Your task to perform on an android device: find which apps use the phone's location Image 0: 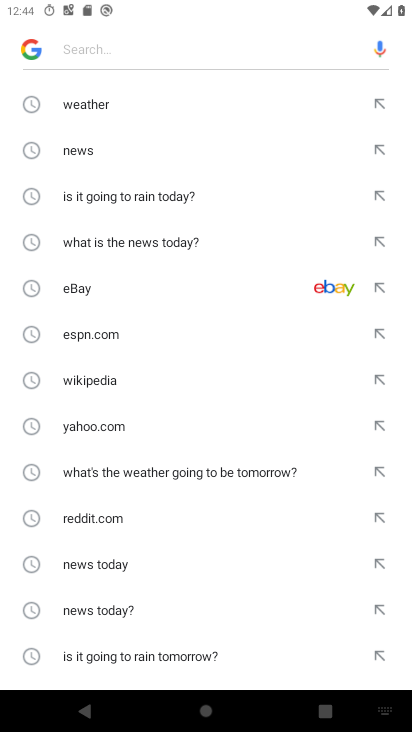
Step 0: press home button
Your task to perform on an android device: find which apps use the phone's location Image 1: 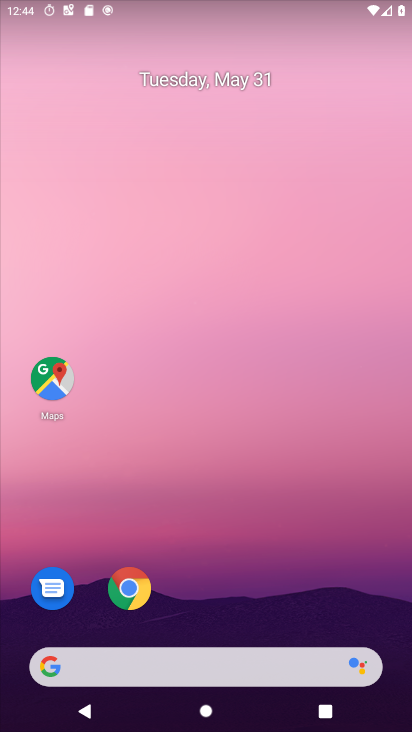
Step 1: drag from (192, 639) to (307, 0)
Your task to perform on an android device: find which apps use the phone's location Image 2: 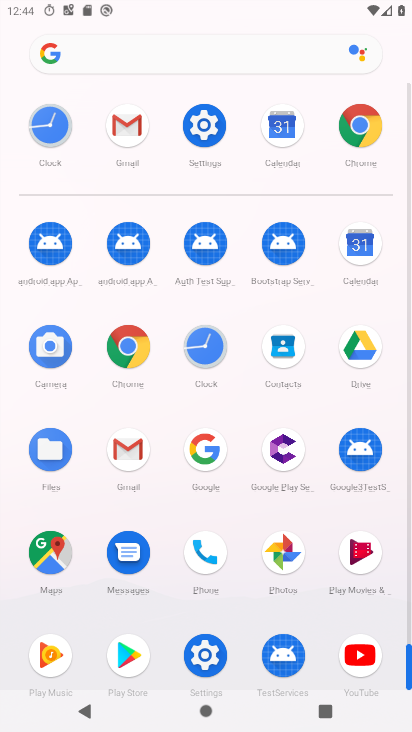
Step 2: click (193, 130)
Your task to perform on an android device: find which apps use the phone's location Image 3: 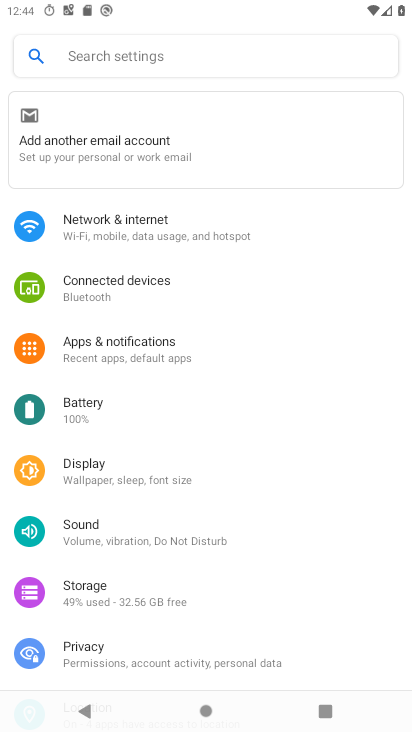
Step 3: drag from (174, 637) to (178, 378)
Your task to perform on an android device: find which apps use the phone's location Image 4: 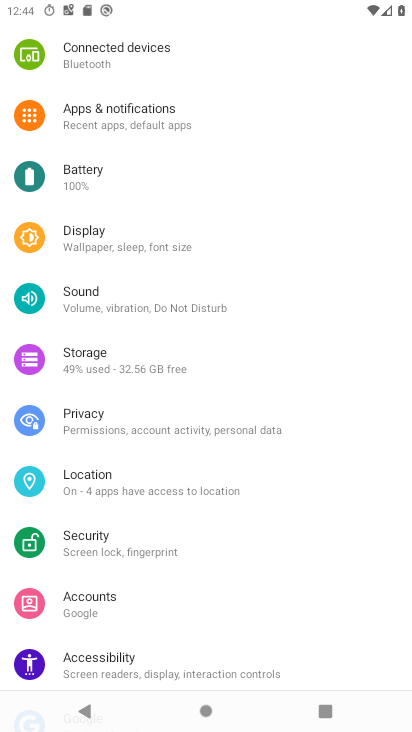
Step 4: click (121, 477)
Your task to perform on an android device: find which apps use the phone's location Image 5: 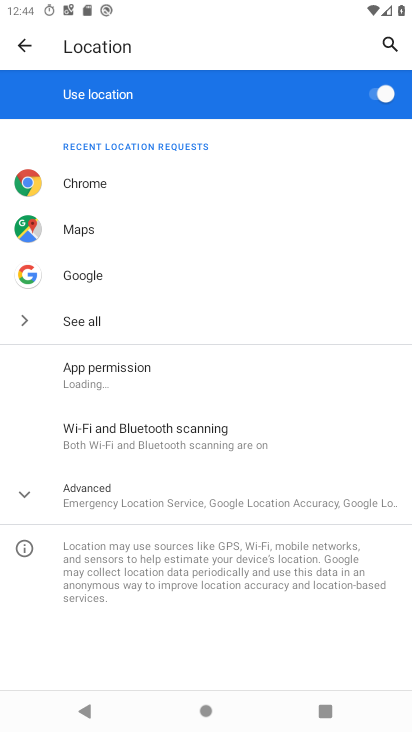
Step 5: click (113, 375)
Your task to perform on an android device: find which apps use the phone's location Image 6: 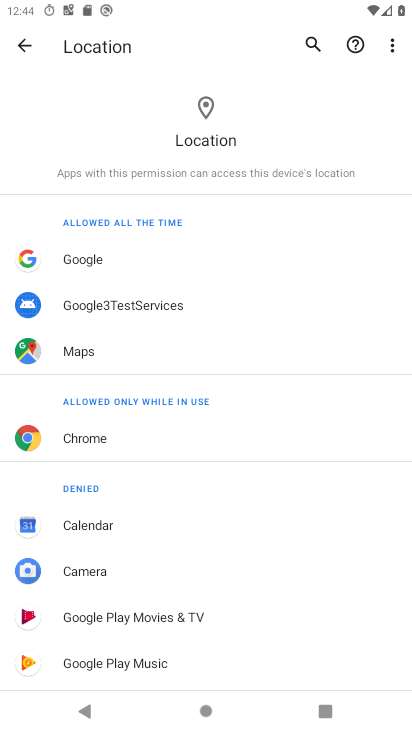
Step 6: task complete